Your task to perform on an android device: manage bookmarks in the chrome app Image 0: 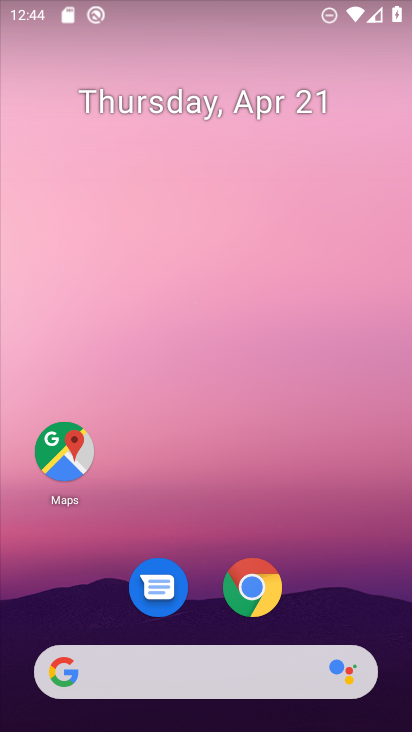
Step 0: click (250, 590)
Your task to perform on an android device: manage bookmarks in the chrome app Image 1: 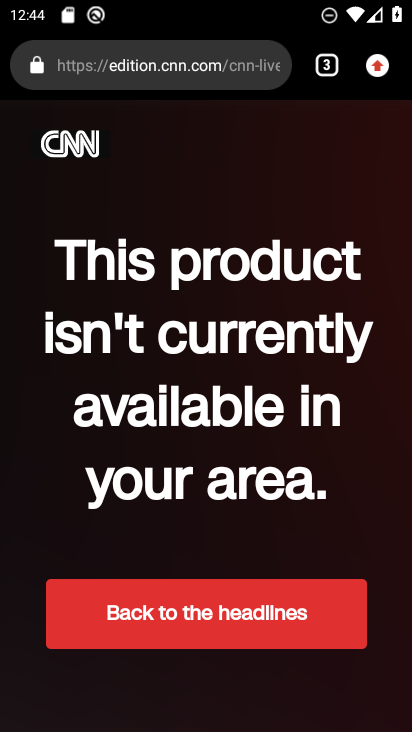
Step 1: click (380, 66)
Your task to perform on an android device: manage bookmarks in the chrome app Image 2: 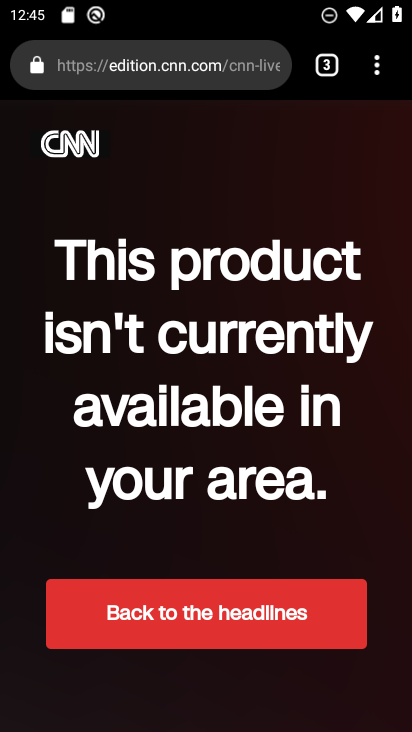
Step 2: click (374, 68)
Your task to perform on an android device: manage bookmarks in the chrome app Image 3: 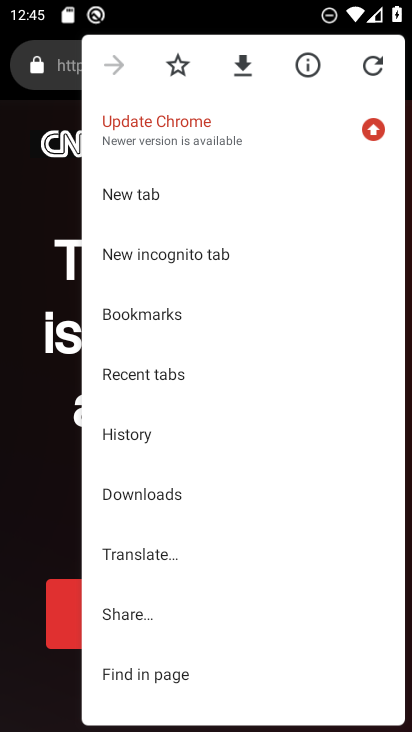
Step 3: click (163, 308)
Your task to perform on an android device: manage bookmarks in the chrome app Image 4: 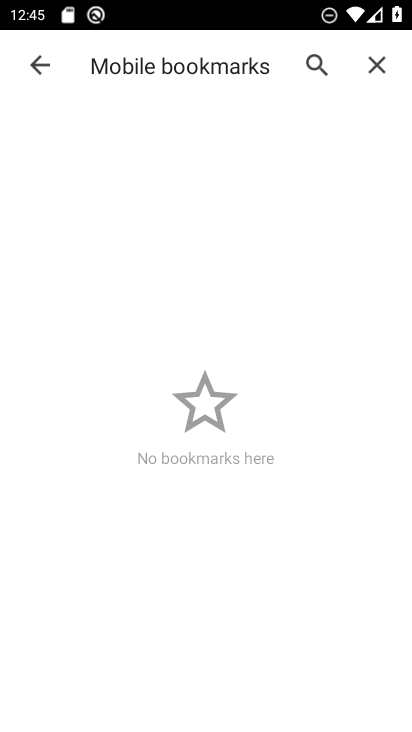
Step 4: task complete